Your task to perform on an android device: change the clock display to show seconds Image 0: 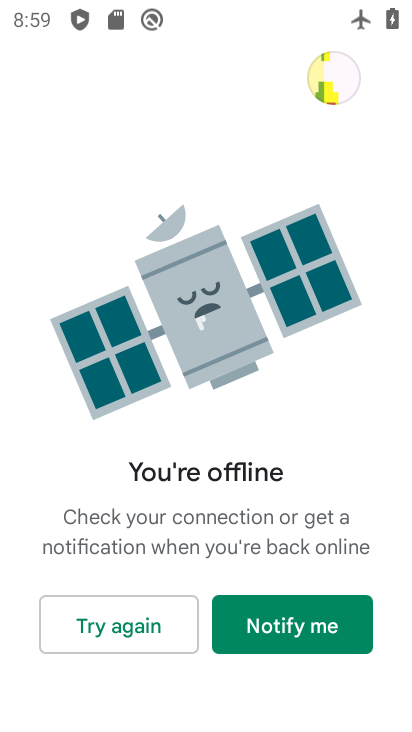
Step 0: press home button
Your task to perform on an android device: change the clock display to show seconds Image 1: 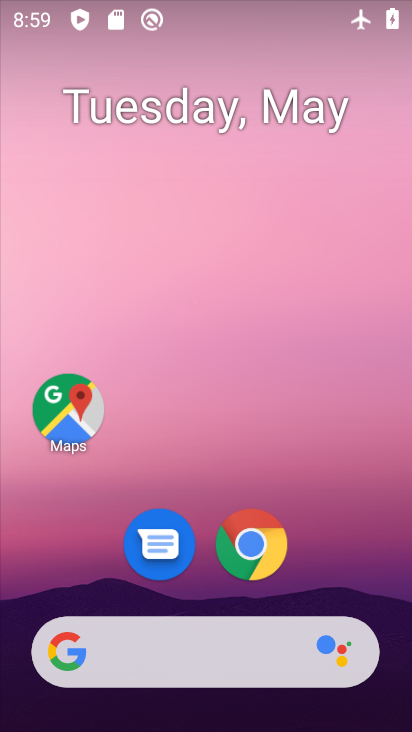
Step 1: drag from (358, 528) to (333, 95)
Your task to perform on an android device: change the clock display to show seconds Image 2: 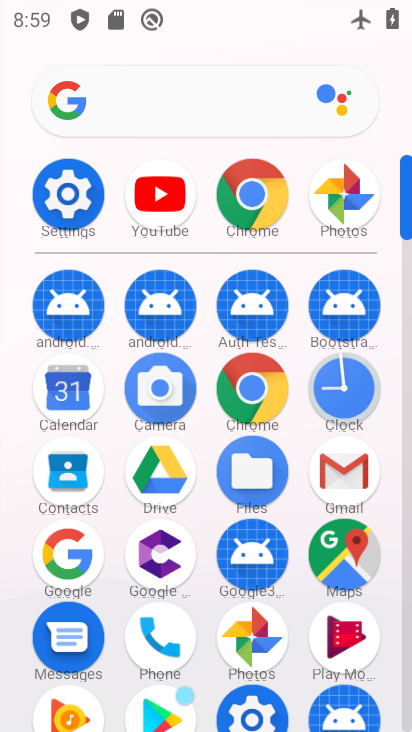
Step 2: click (341, 386)
Your task to perform on an android device: change the clock display to show seconds Image 3: 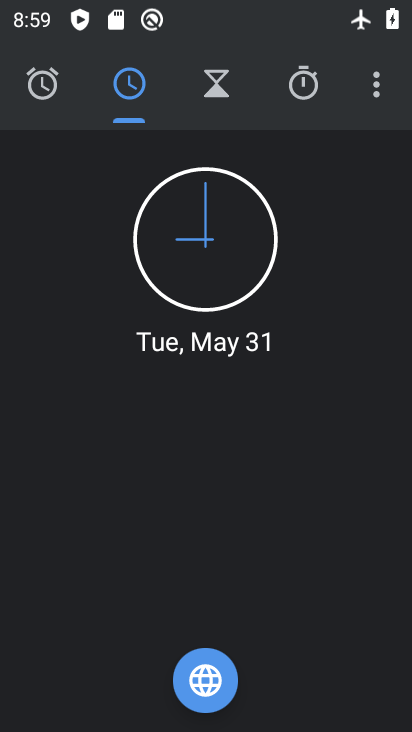
Step 3: drag from (375, 91) to (283, 185)
Your task to perform on an android device: change the clock display to show seconds Image 4: 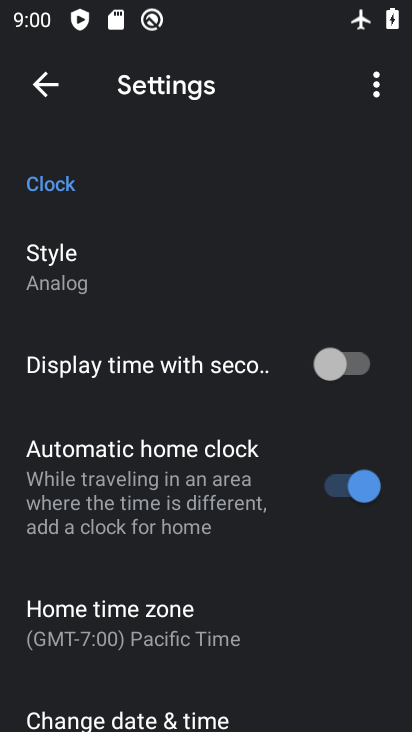
Step 4: click (351, 364)
Your task to perform on an android device: change the clock display to show seconds Image 5: 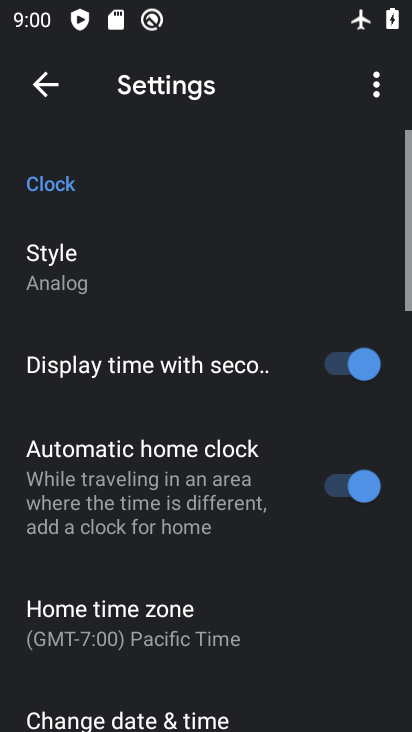
Step 5: task complete